Your task to perform on an android device: set an alarm Image 0: 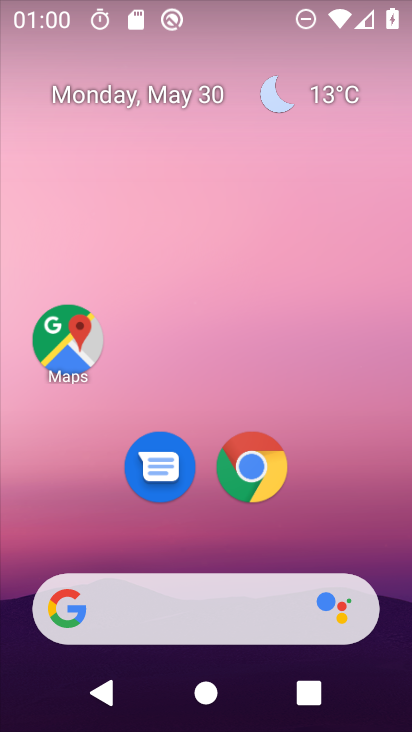
Step 0: drag from (201, 538) to (190, 183)
Your task to perform on an android device: set an alarm Image 1: 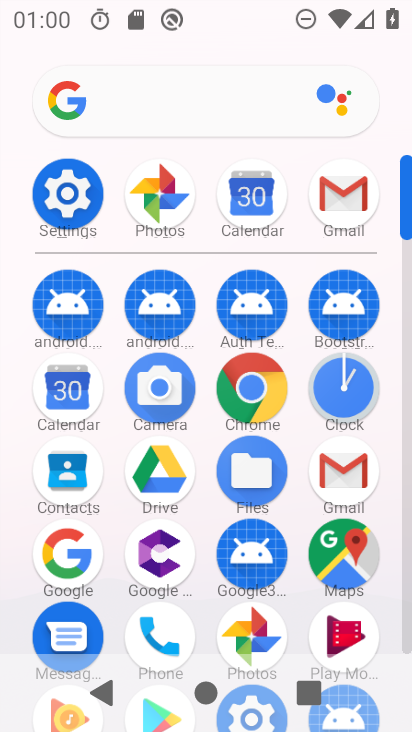
Step 1: click (332, 394)
Your task to perform on an android device: set an alarm Image 2: 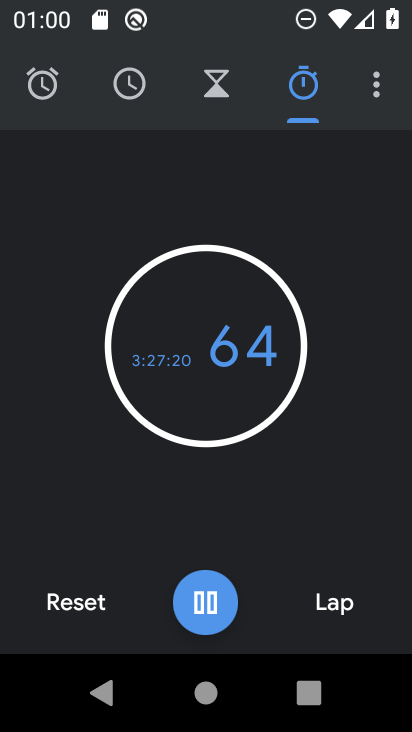
Step 2: click (59, 89)
Your task to perform on an android device: set an alarm Image 3: 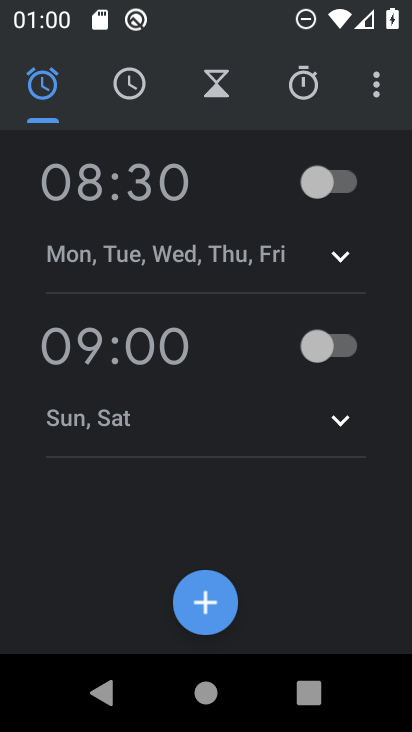
Step 3: click (328, 183)
Your task to perform on an android device: set an alarm Image 4: 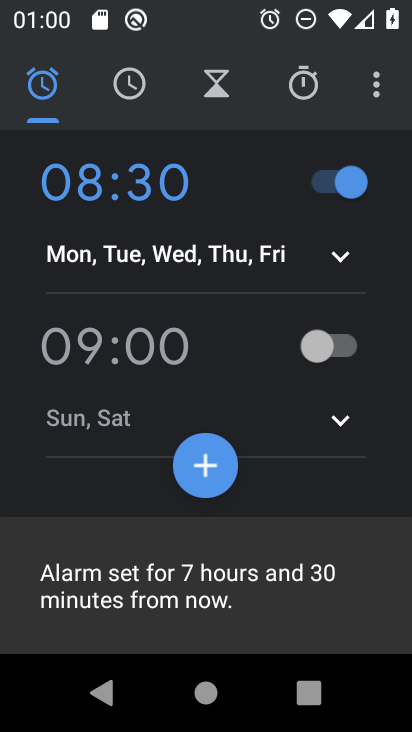
Step 4: task complete